Your task to perform on an android device: toggle airplane mode Image 0: 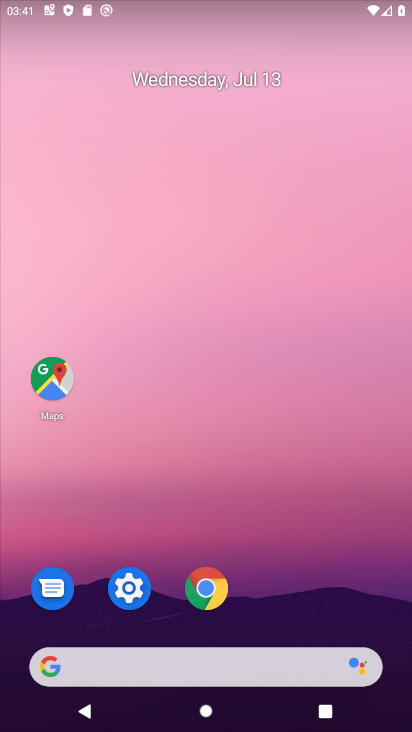
Step 0: drag from (234, 700) to (167, 317)
Your task to perform on an android device: toggle airplane mode Image 1: 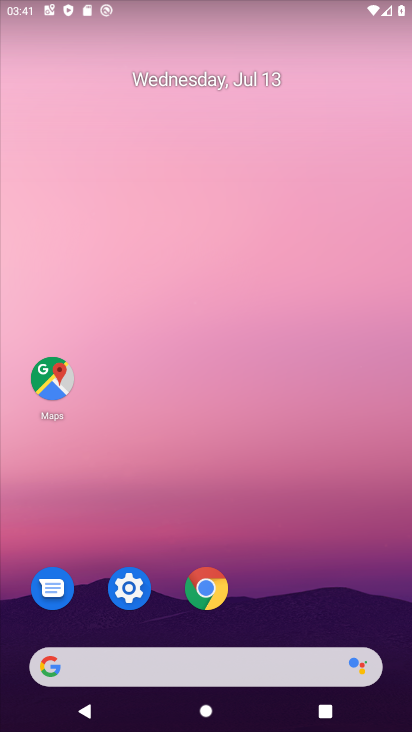
Step 1: drag from (249, 447) to (235, 165)
Your task to perform on an android device: toggle airplane mode Image 2: 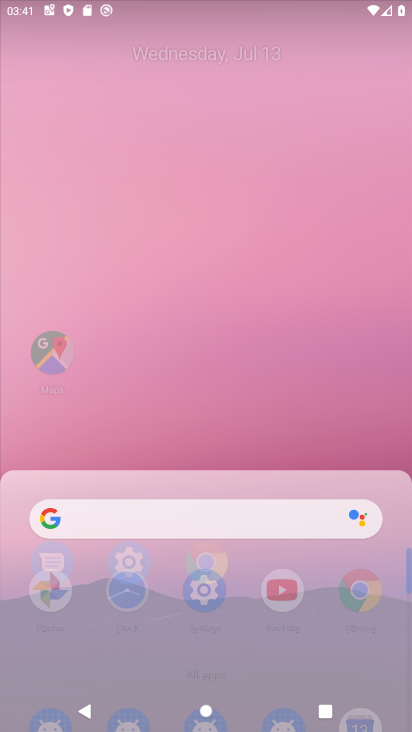
Step 2: drag from (254, 501) to (123, 15)
Your task to perform on an android device: toggle airplane mode Image 3: 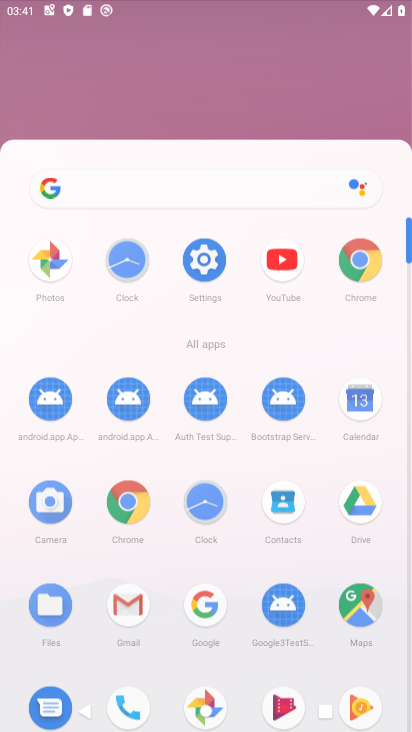
Step 3: drag from (221, 543) to (116, 27)
Your task to perform on an android device: toggle airplane mode Image 4: 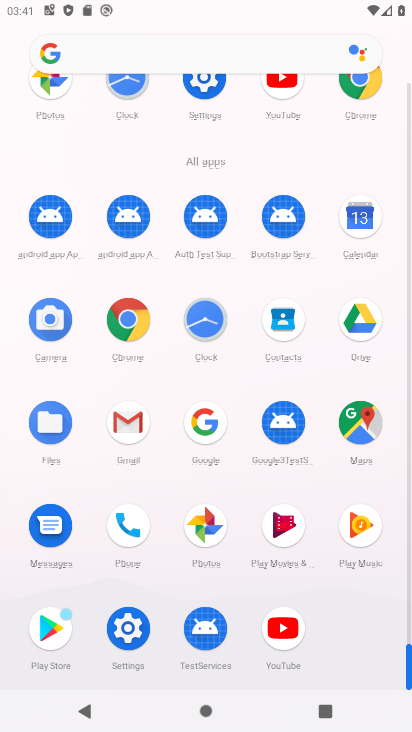
Step 4: click (140, 634)
Your task to perform on an android device: toggle airplane mode Image 5: 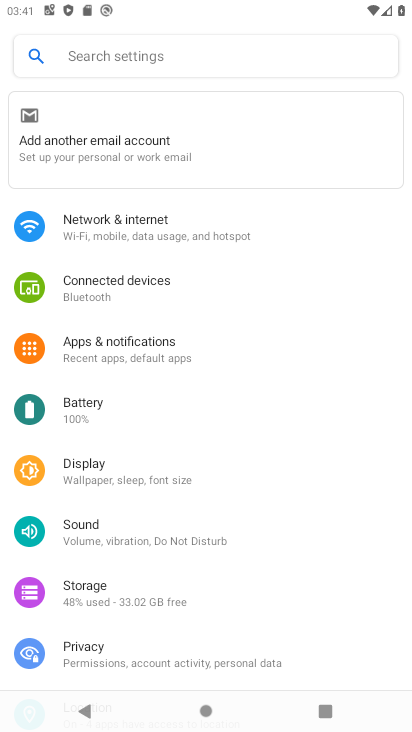
Step 5: click (103, 219)
Your task to perform on an android device: toggle airplane mode Image 6: 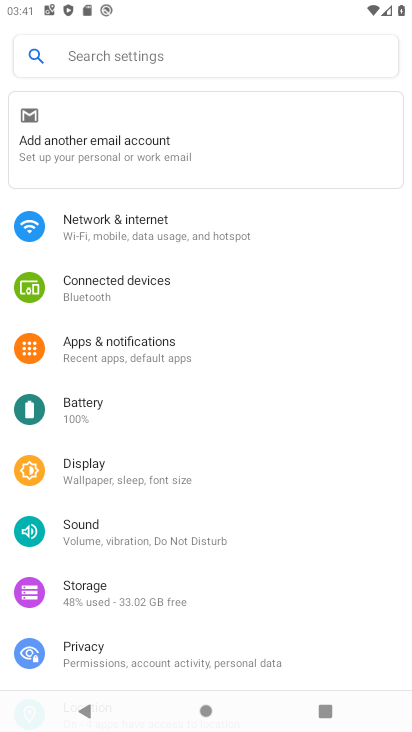
Step 6: click (104, 220)
Your task to perform on an android device: toggle airplane mode Image 7: 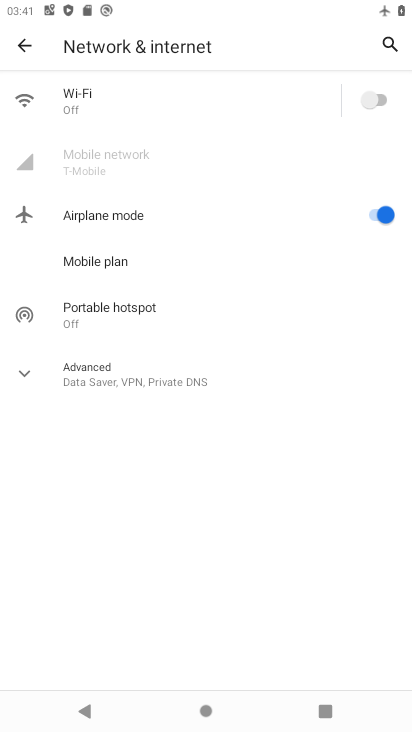
Step 7: task complete